Your task to perform on an android device: check battery use Image 0: 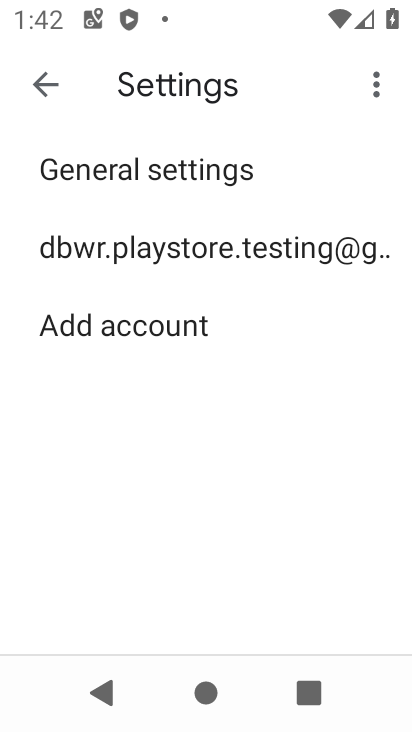
Step 0: press home button
Your task to perform on an android device: check battery use Image 1: 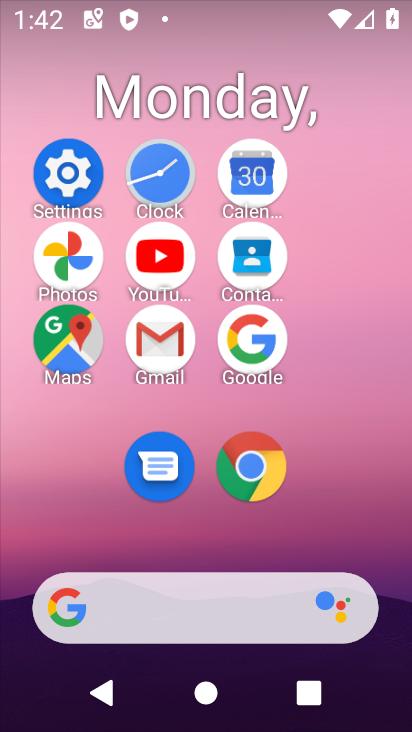
Step 1: click (76, 171)
Your task to perform on an android device: check battery use Image 2: 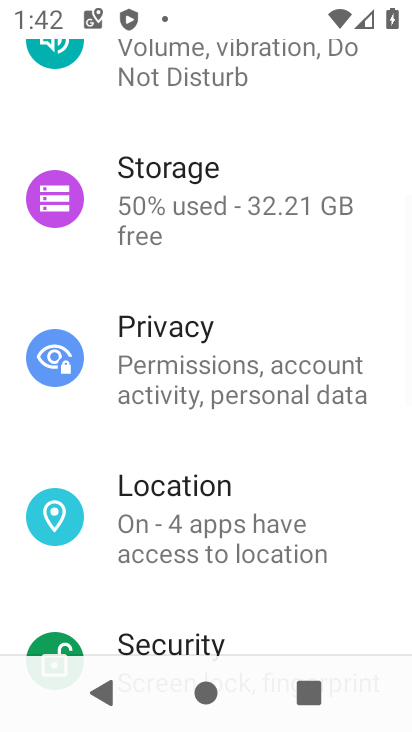
Step 2: drag from (318, 151) to (340, 501)
Your task to perform on an android device: check battery use Image 3: 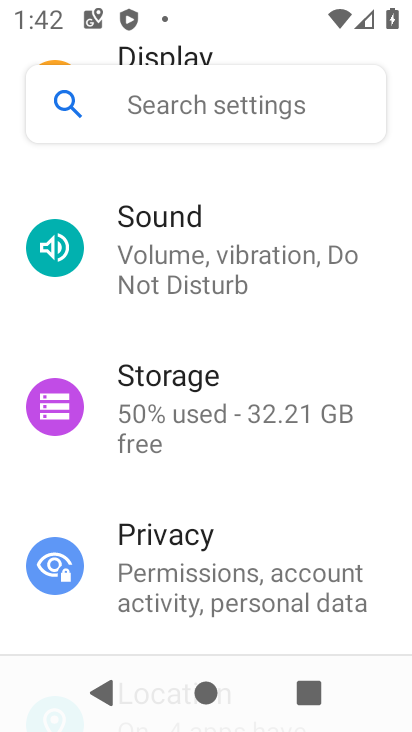
Step 3: drag from (275, 251) to (305, 575)
Your task to perform on an android device: check battery use Image 4: 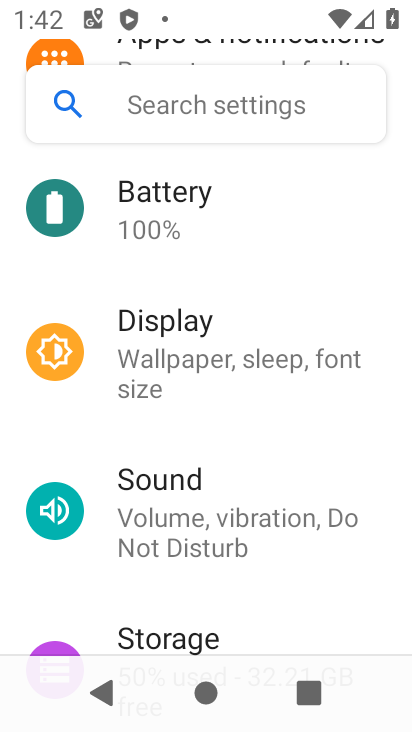
Step 4: click (226, 205)
Your task to perform on an android device: check battery use Image 5: 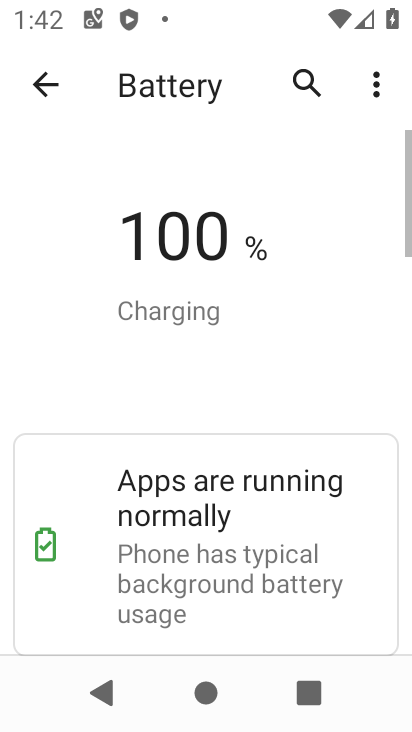
Step 5: click (386, 77)
Your task to perform on an android device: check battery use Image 6: 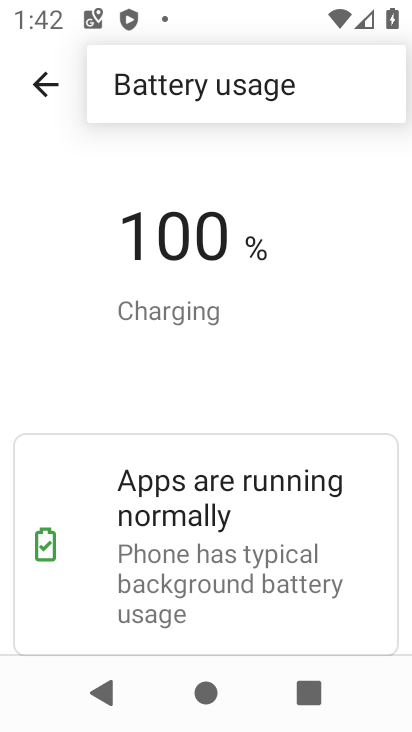
Step 6: click (316, 94)
Your task to perform on an android device: check battery use Image 7: 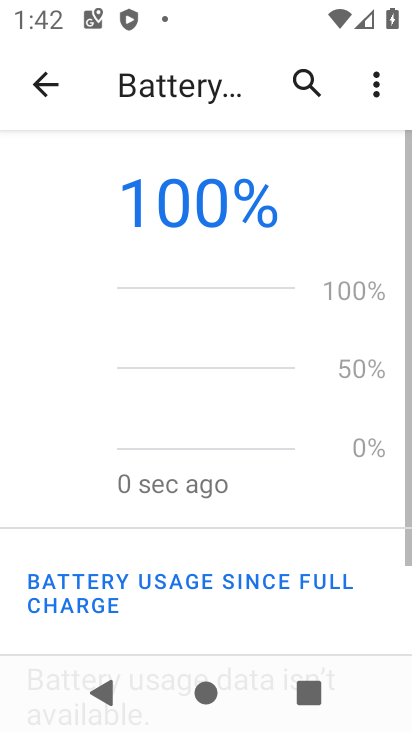
Step 7: task complete